Your task to perform on an android device: Is it going to rain today? Image 0: 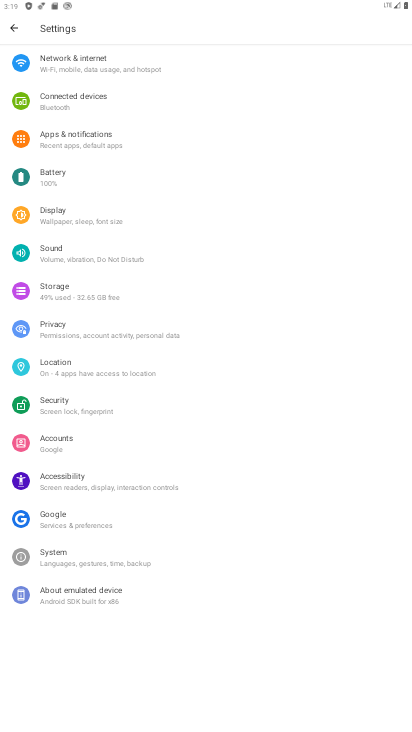
Step 0: press home button
Your task to perform on an android device: Is it going to rain today? Image 1: 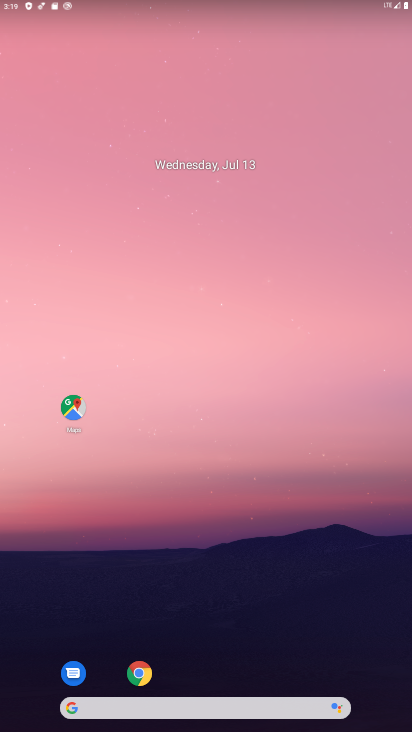
Step 1: drag from (170, 704) to (171, 81)
Your task to perform on an android device: Is it going to rain today? Image 2: 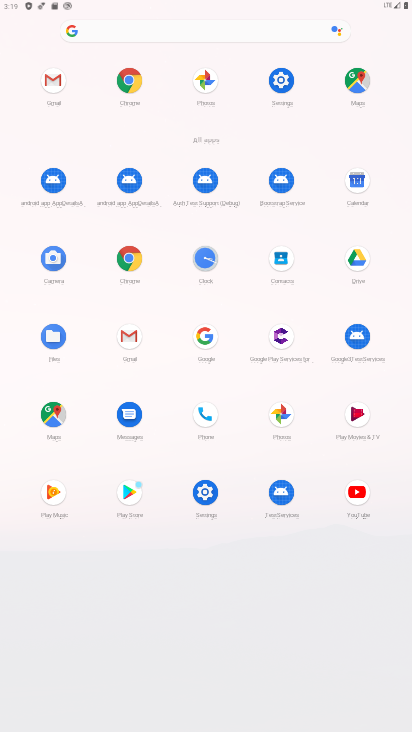
Step 2: click (211, 335)
Your task to perform on an android device: Is it going to rain today? Image 3: 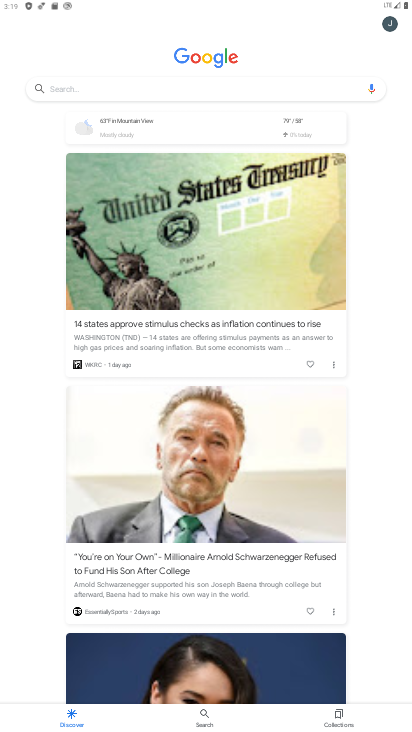
Step 3: click (139, 115)
Your task to perform on an android device: Is it going to rain today? Image 4: 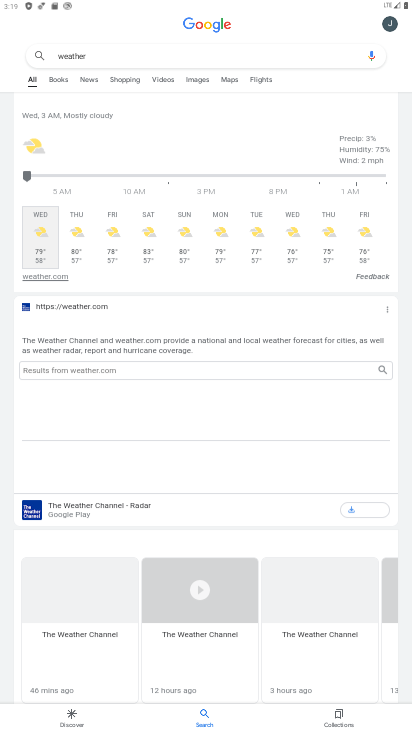
Step 4: task complete